Your task to perform on an android device: Search for sushi restaurants on Maps Image 0: 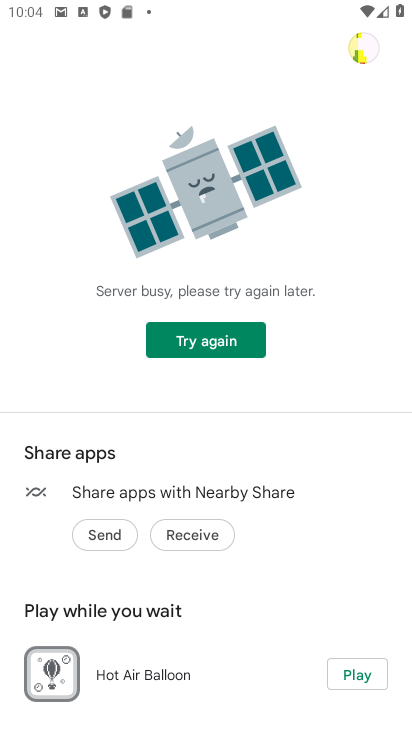
Step 0: press home button
Your task to perform on an android device: Search for sushi restaurants on Maps Image 1: 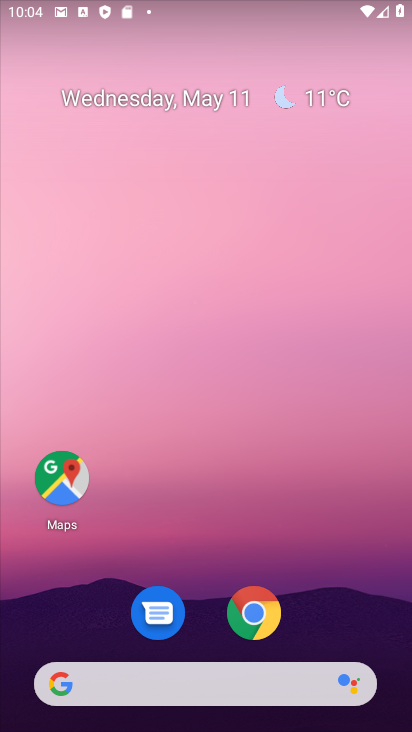
Step 1: drag from (306, 565) to (299, 272)
Your task to perform on an android device: Search for sushi restaurants on Maps Image 2: 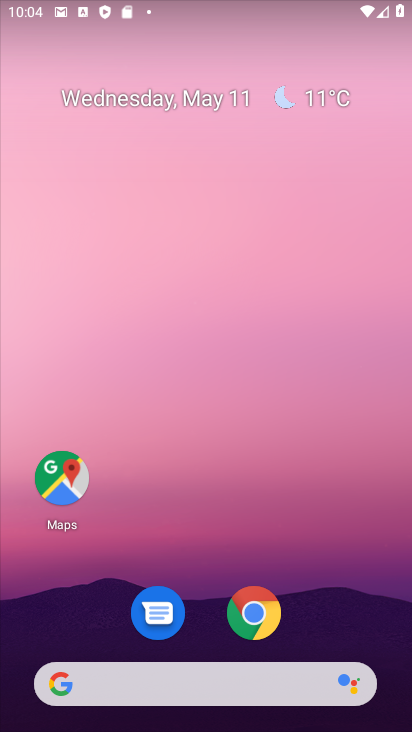
Step 2: drag from (230, 541) to (285, 162)
Your task to perform on an android device: Search for sushi restaurants on Maps Image 3: 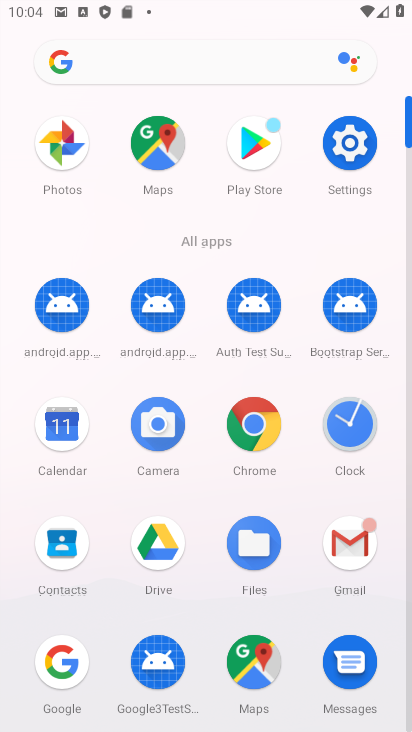
Step 3: click (247, 668)
Your task to perform on an android device: Search for sushi restaurants on Maps Image 4: 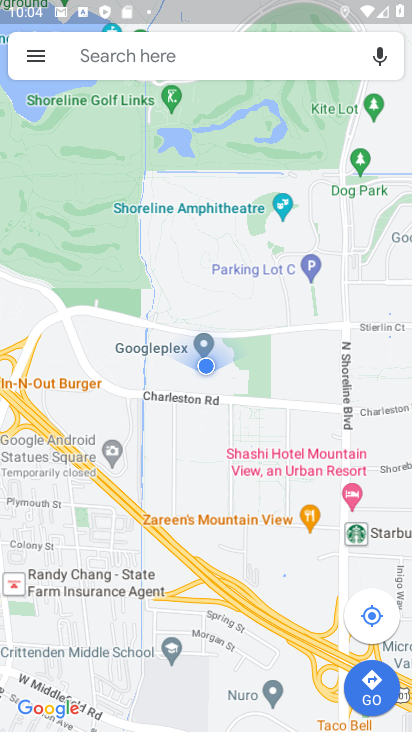
Step 4: click (185, 62)
Your task to perform on an android device: Search for sushi restaurants on Maps Image 5: 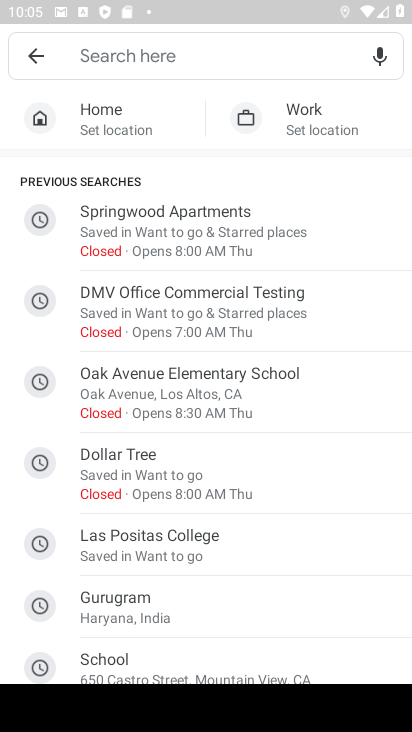
Step 5: click (149, 48)
Your task to perform on an android device: Search for sushi restaurants on Maps Image 6: 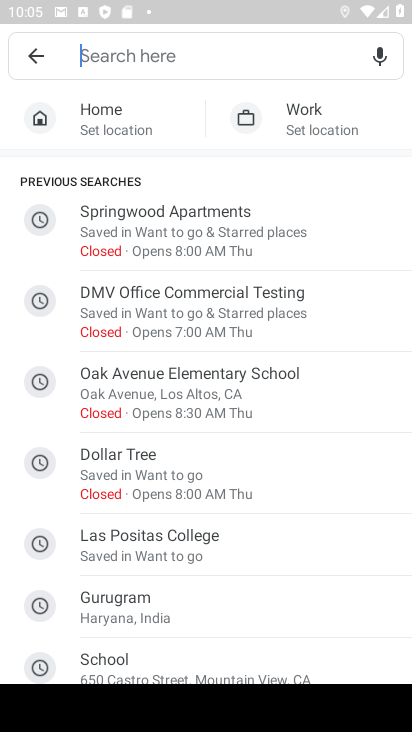
Step 6: type "sushi restaurants "
Your task to perform on an android device: Search for sushi restaurants on Maps Image 7: 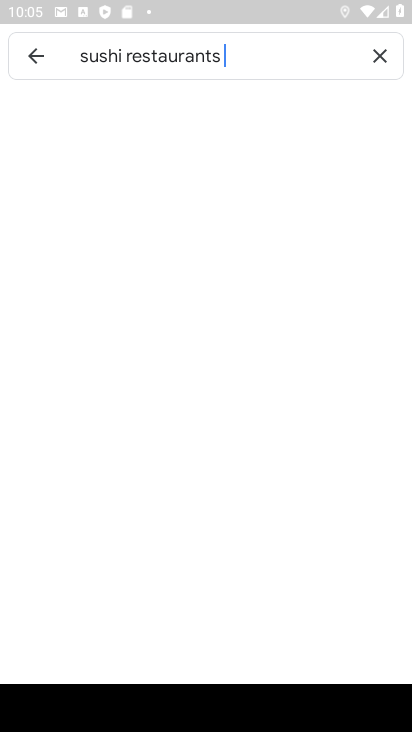
Step 7: type ""
Your task to perform on an android device: Search for sushi restaurants on Maps Image 8: 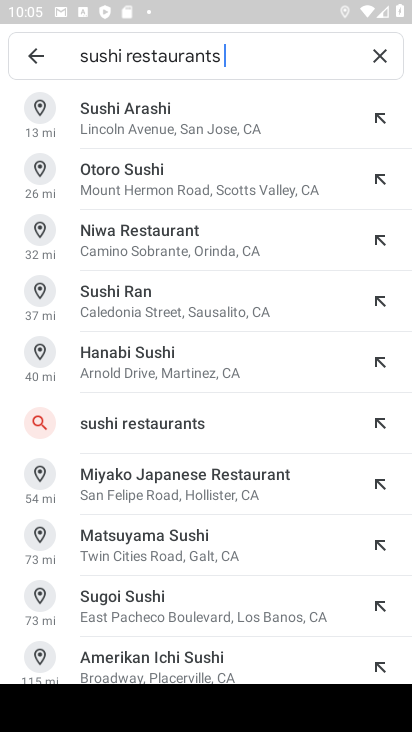
Step 8: click (175, 417)
Your task to perform on an android device: Search for sushi restaurants on Maps Image 9: 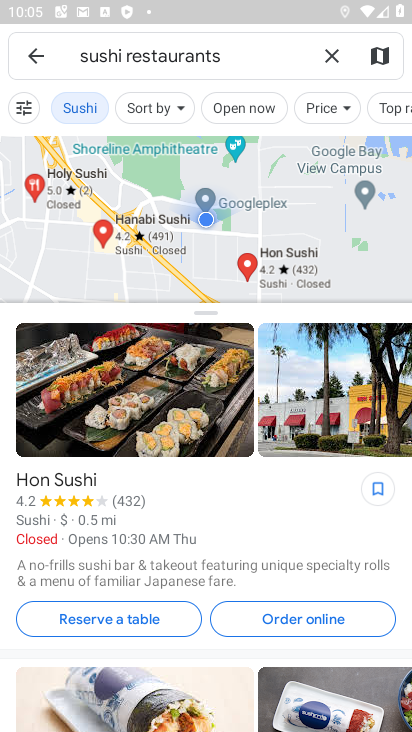
Step 9: task complete